Your task to perform on an android device: Open network settings Image 0: 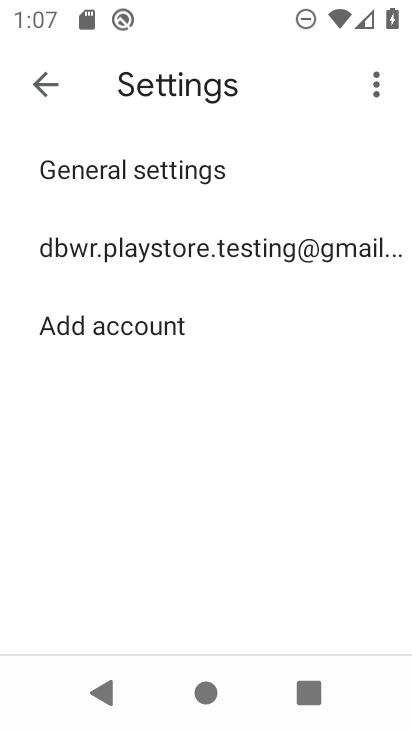
Step 0: press home button
Your task to perform on an android device: Open network settings Image 1: 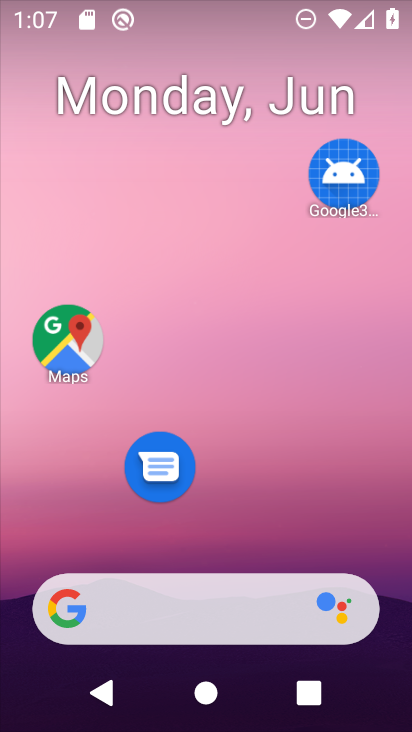
Step 1: drag from (348, 429) to (250, 41)
Your task to perform on an android device: Open network settings Image 2: 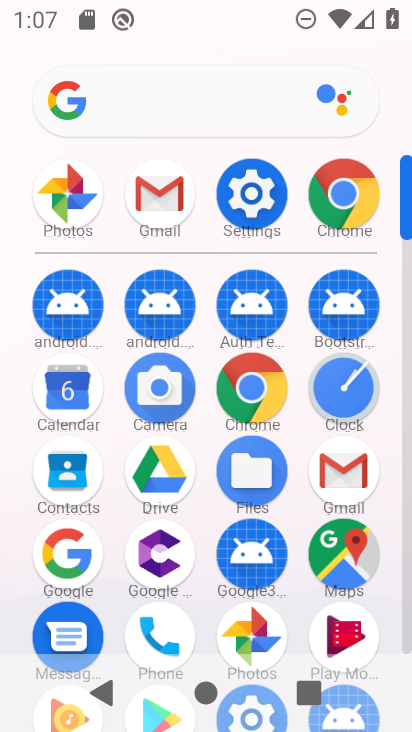
Step 2: click (255, 184)
Your task to perform on an android device: Open network settings Image 3: 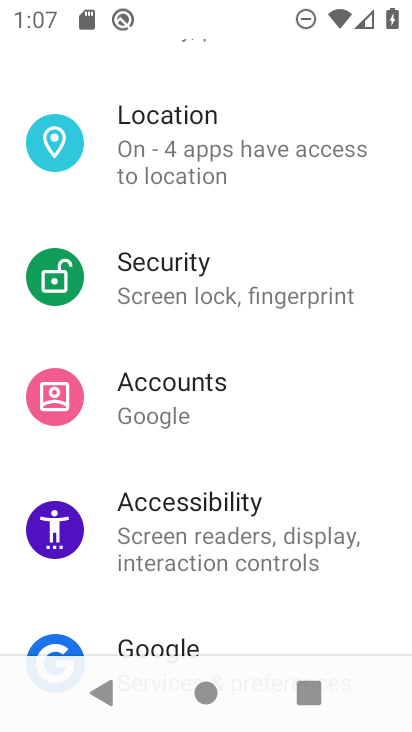
Step 3: drag from (282, 163) to (261, 710)
Your task to perform on an android device: Open network settings Image 4: 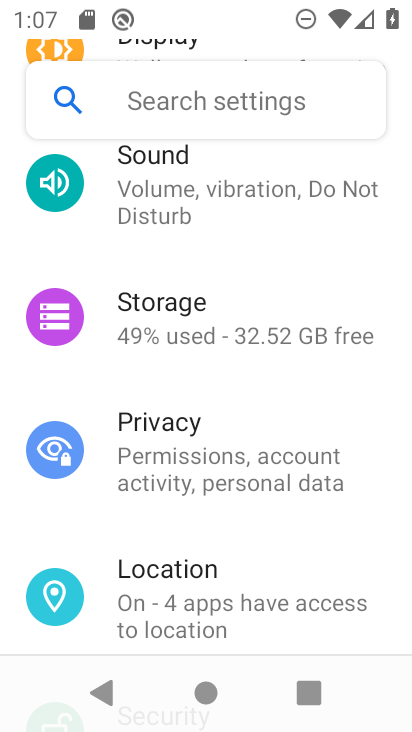
Step 4: drag from (321, 156) to (171, 730)
Your task to perform on an android device: Open network settings Image 5: 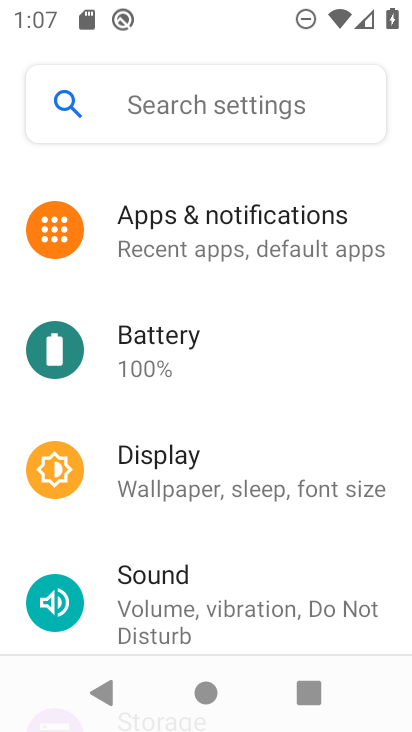
Step 5: drag from (326, 297) to (41, 654)
Your task to perform on an android device: Open network settings Image 6: 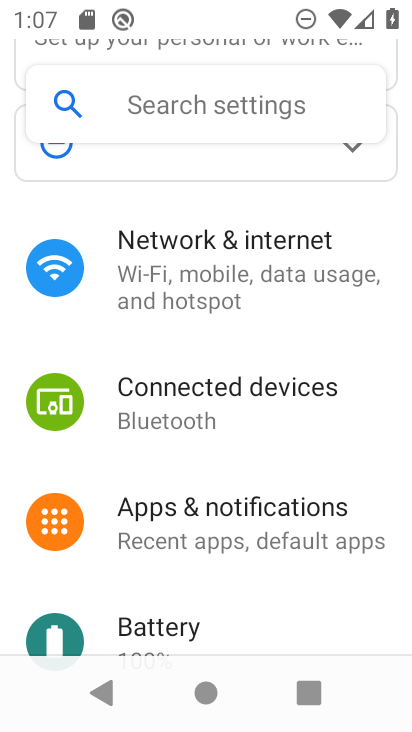
Step 6: click (381, 263)
Your task to perform on an android device: Open network settings Image 7: 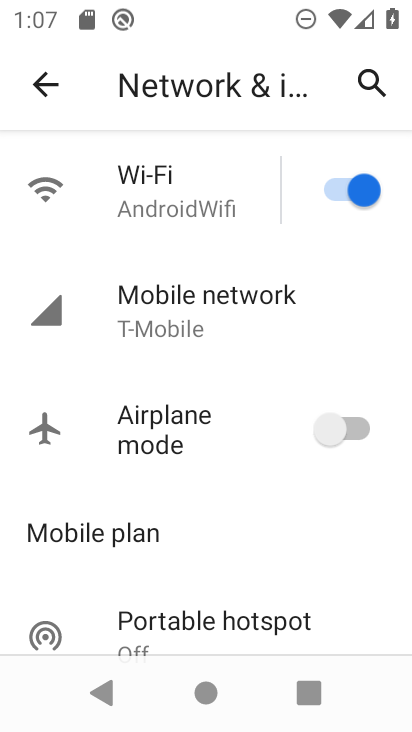
Step 7: task complete